Your task to perform on an android device: Open the map Image 0: 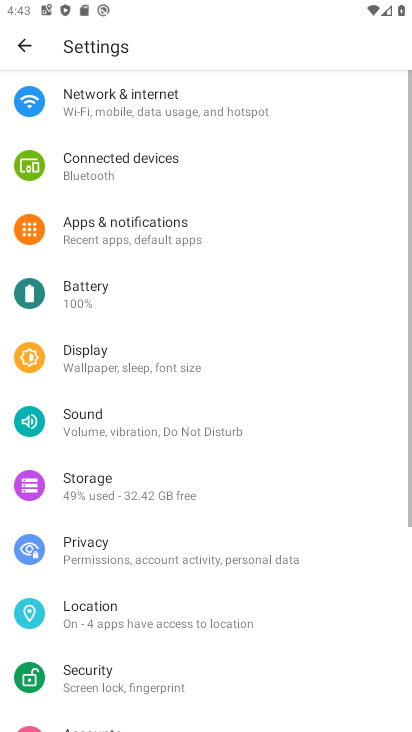
Step 0: press home button
Your task to perform on an android device: Open the map Image 1: 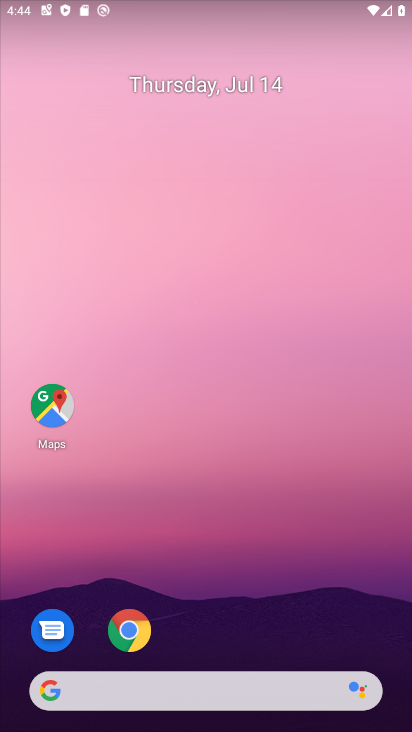
Step 1: drag from (174, 717) to (296, 53)
Your task to perform on an android device: Open the map Image 2: 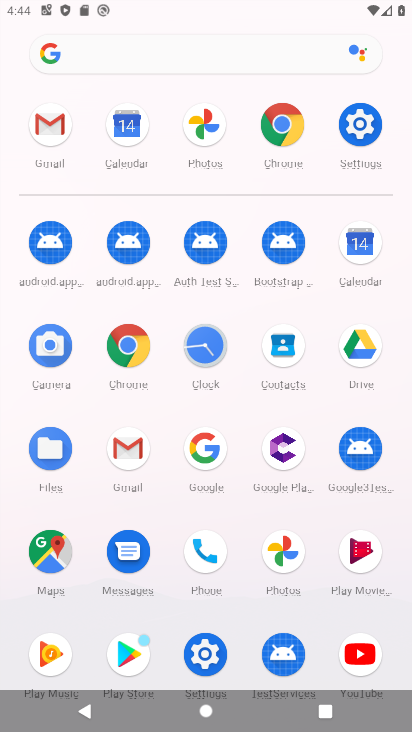
Step 2: click (47, 553)
Your task to perform on an android device: Open the map Image 3: 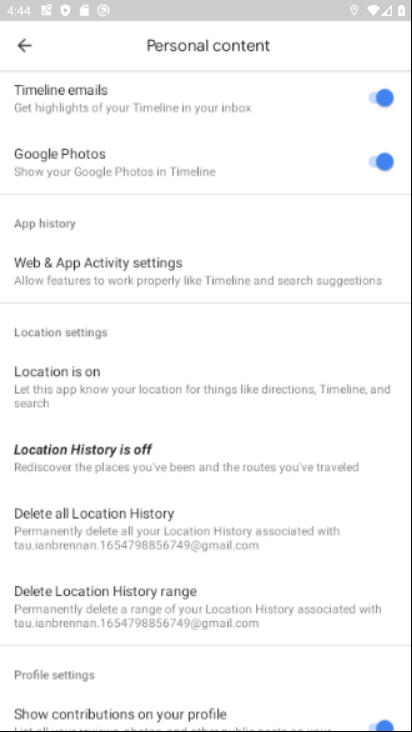
Step 3: task complete